Your task to perform on an android device: open a bookmark in the chrome app Image 0: 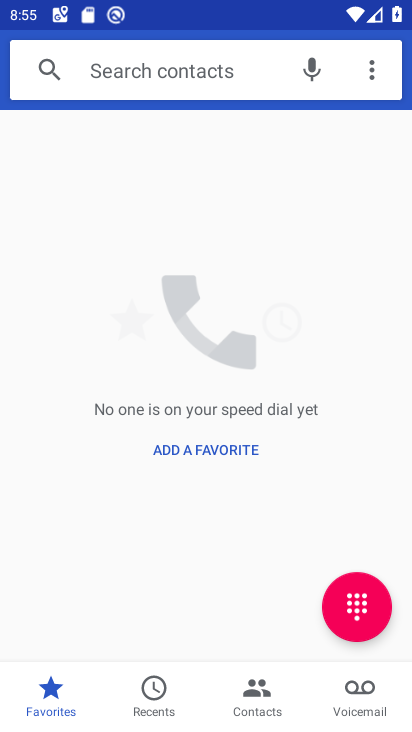
Step 0: press home button
Your task to perform on an android device: open a bookmark in the chrome app Image 1: 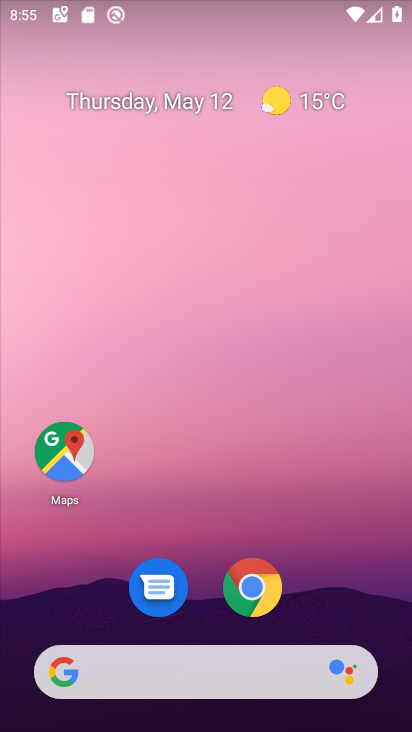
Step 1: drag from (375, 604) to (281, 103)
Your task to perform on an android device: open a bookmark in the chrome app Image 2: 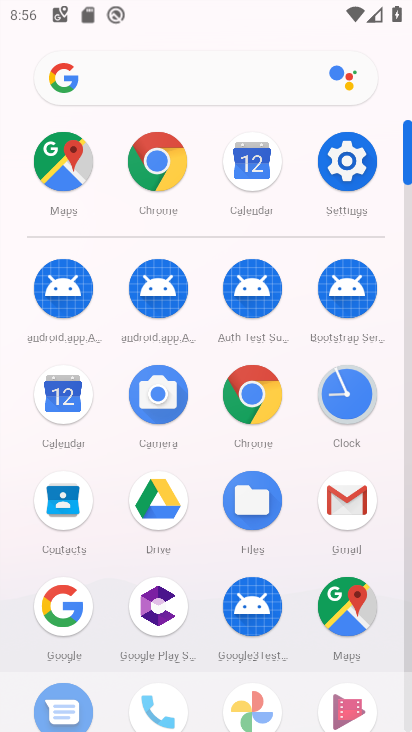
Step 2: click (172, 175)
Your task to perform on an android device: open a bookmark in the chrome app Image 3: 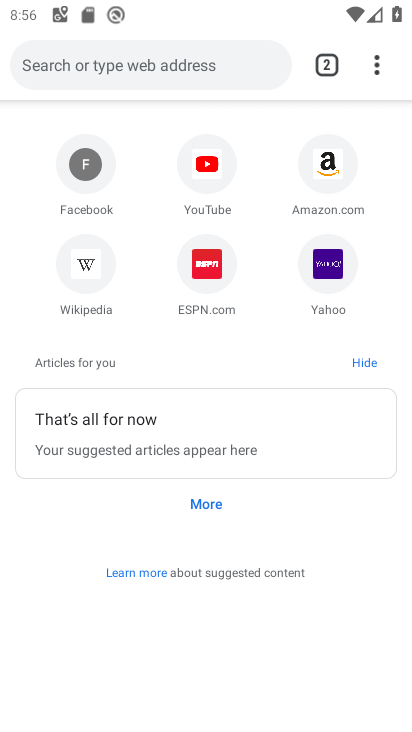
Step 3: click (381, 60)
Your task to perform on an android device: open a bookmark in the chrome app Image 4: 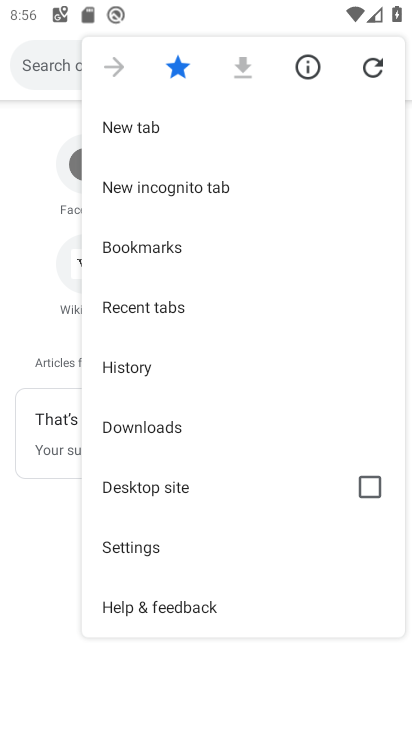
Step 4: click (250, 258)
Your task to perform on an android device: open a bookmark in the chrome app Image 5: 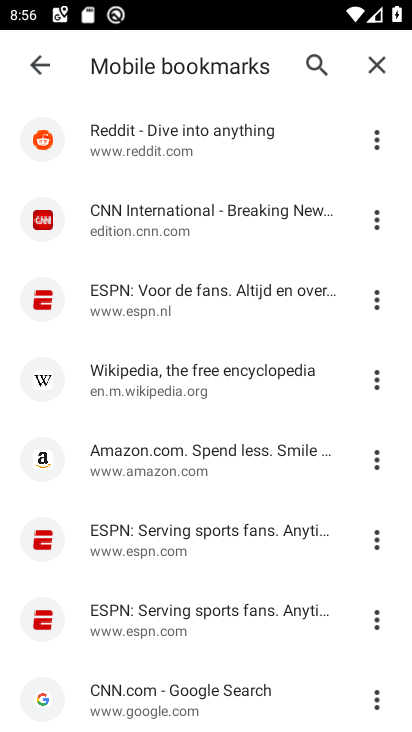
Step 5: task complete